Your task to perform on an android device: Go to settings Image 0: 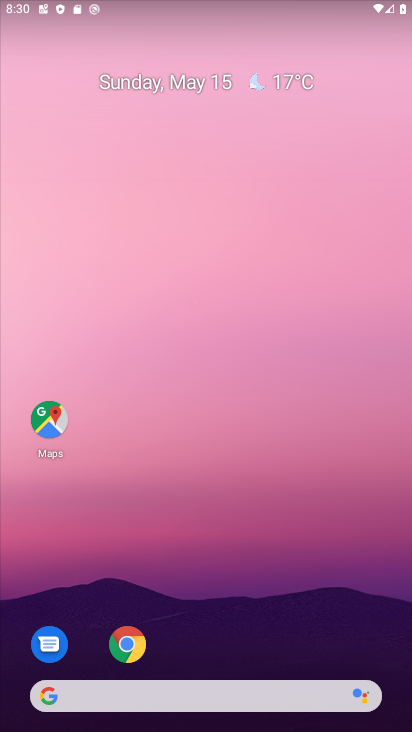
Step 0: drag from (289, 603) to (226, 176)
Your task to perform on an android device: Go to settings Image 1: 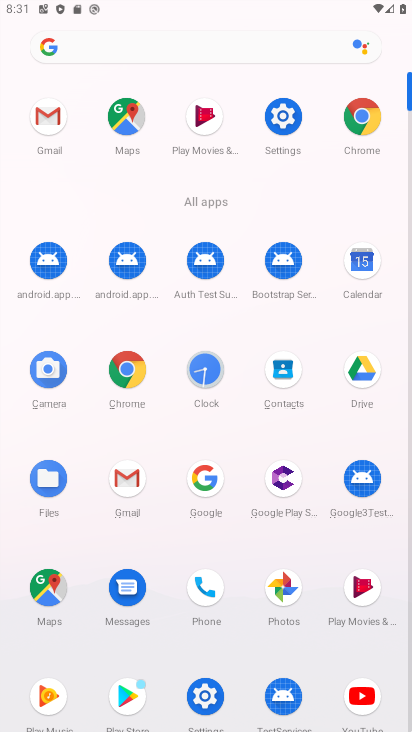
Step 1: click (291, 119)
Your task to perform on an android device: Go to settings Image 2: 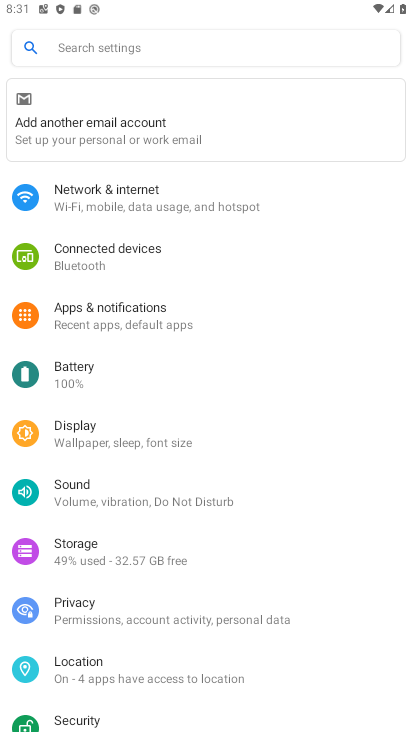
Step 2: task complete